Your task to perform on an android device: Open Google Image 0: 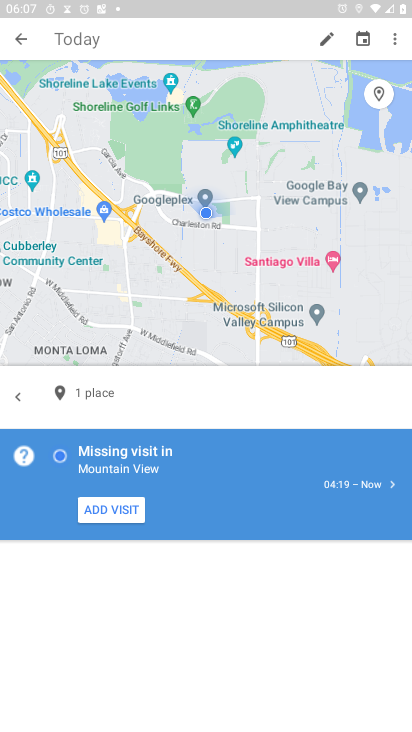
Step 0: press home button
Your task to perform on an android device: Open Google Image 1: 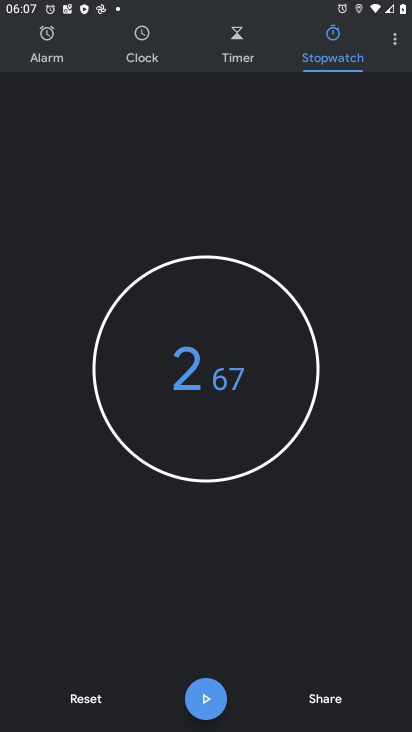
Step 1: press home button
Your task to perform on an android device: Open Google Image 2: 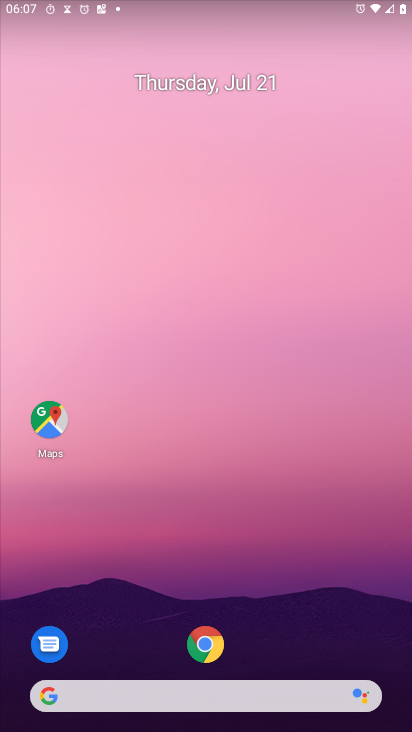
Step 2: press home button
Your task to perform on an android device: Open Google Image 3: 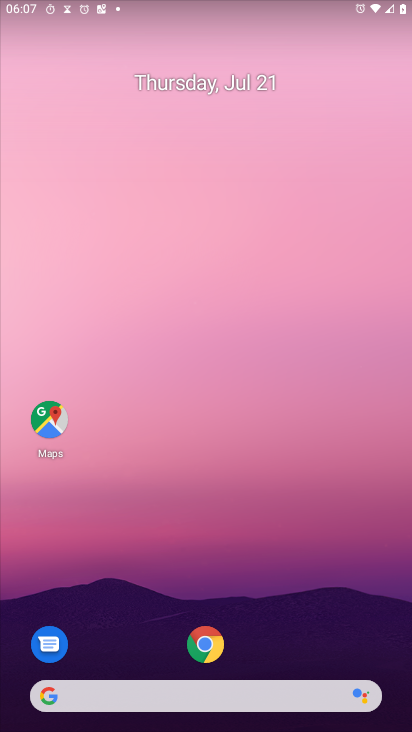
Step 3: press home button
Your task to perform on an android device: Open Google Image 4: 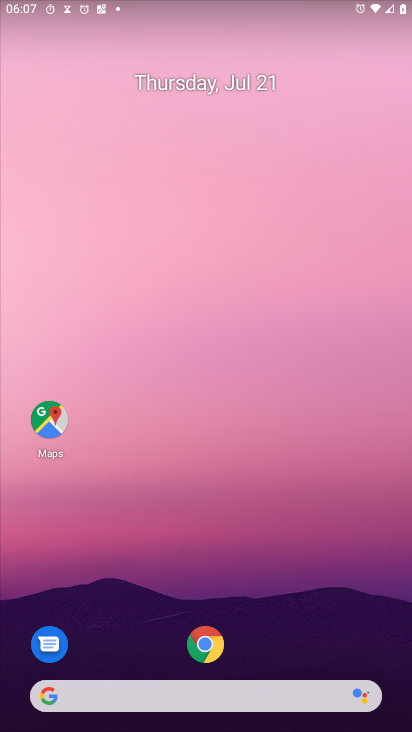
Step 4: drag from (306, 598) to (269, 115)
Your task to perform on an android device: Open Google Image 5: 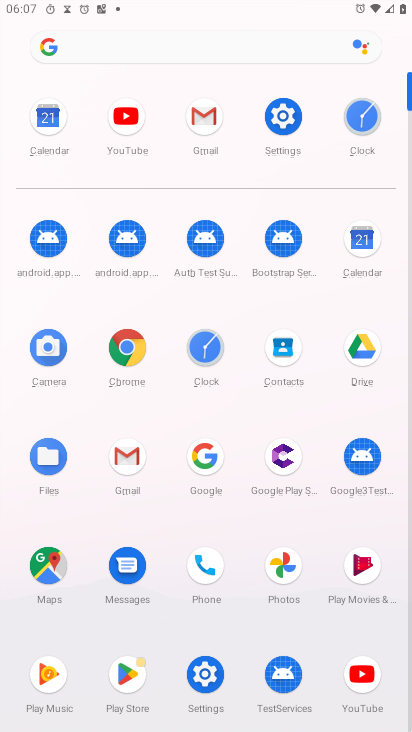
Step 5: click (200, 457)
Your task to perform on an android device: Open Google Image 6: 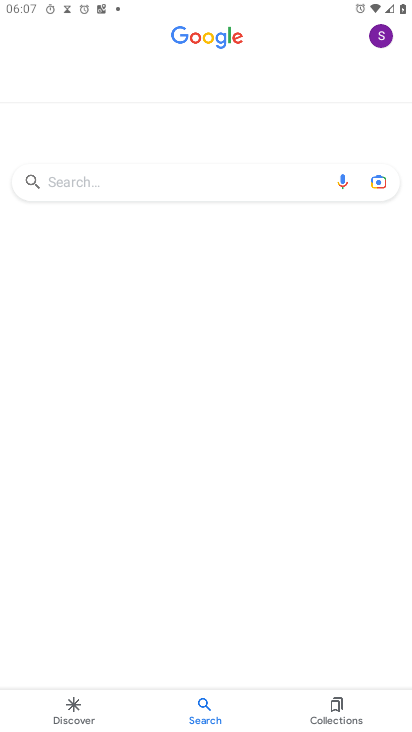
Step 6: click (211, 36)
Your task to perform on an android device: Open Google Image 7: 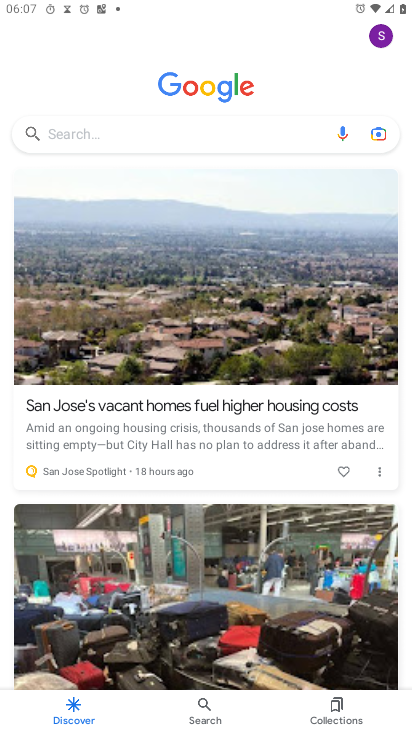
Step 7: task complete